Your task to perform on an android device: Is it going to rain tomorrow? Image 0: 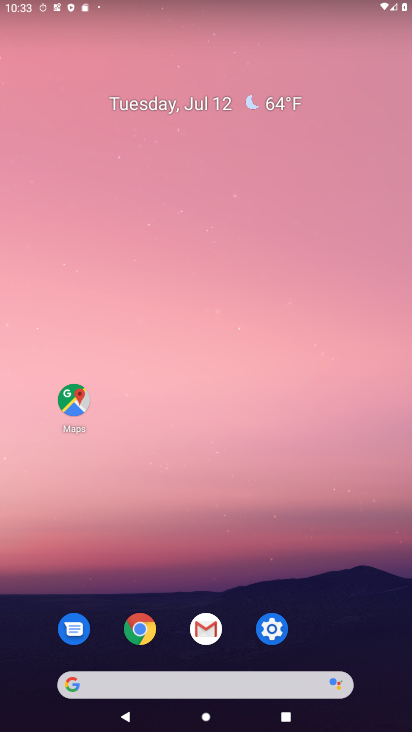
Step 0: click (215, 702)
Your task to perform on an android device: Is it going to rain tomorrow? Image 1: 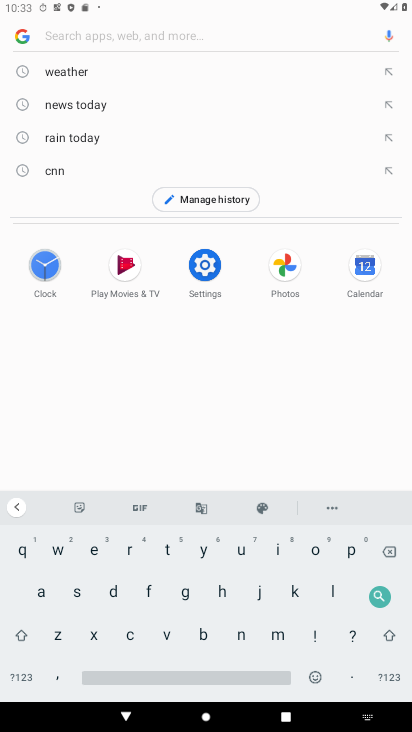
Step 1: click (89, 137)
Your task to perform on an android device: Is it going to rain tomorrow? Image 2: 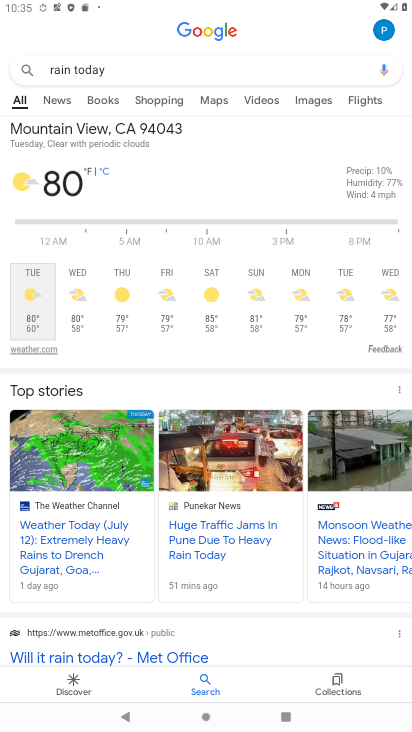
Step 2: task complete